Your task to perform on an android device: What is the recent news? Image 0: 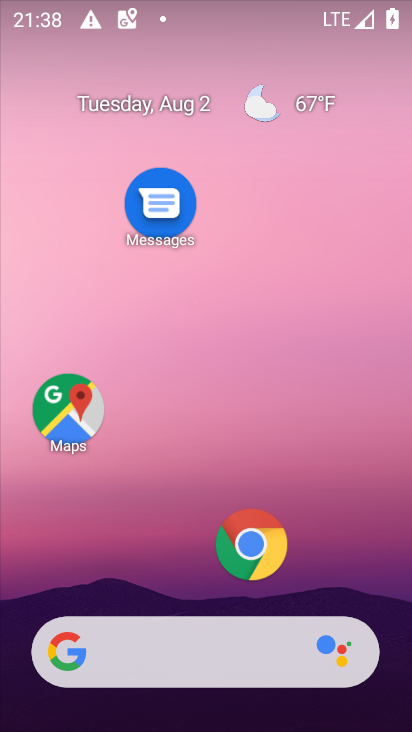
Step 0: drag from (182, 589) to (172, 167)
Your task to perform on an android device: What is the recent news? Image 1: 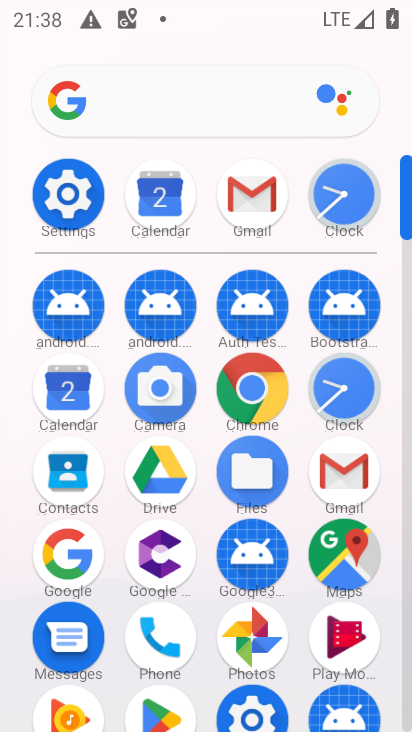
Step 1: click (87, 564)
Your task to perform on an android device: What is the recent news? Image 2: 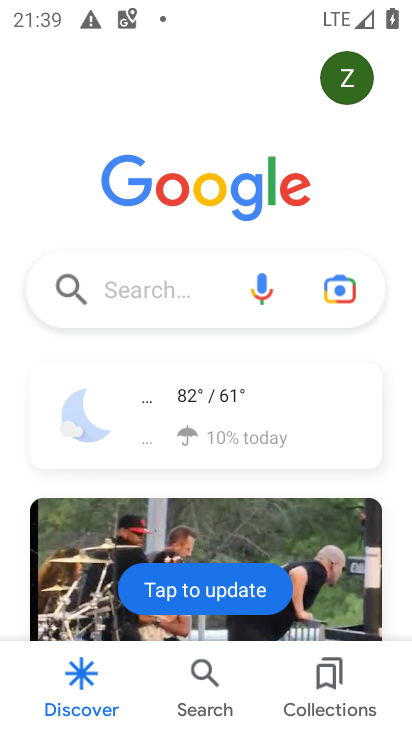
Step 2: click (161, 280)
Your task to perform on an android device: What is the recent news? Image 3: 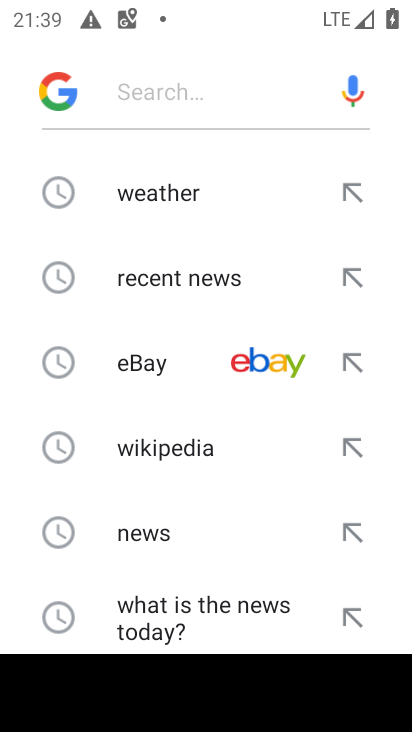
Step 3: click (156, 523)
Your task to perform on an android device: What is the recent news? Image 4: 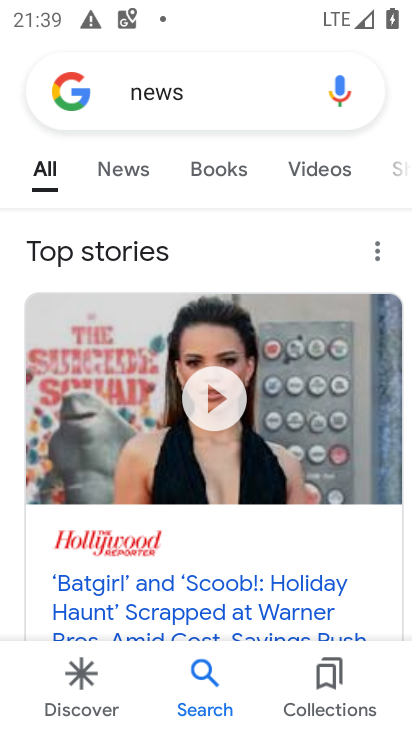
Step 4: click (105, 157)
Your task to perform on an android device: What is the recent news? Image 5: 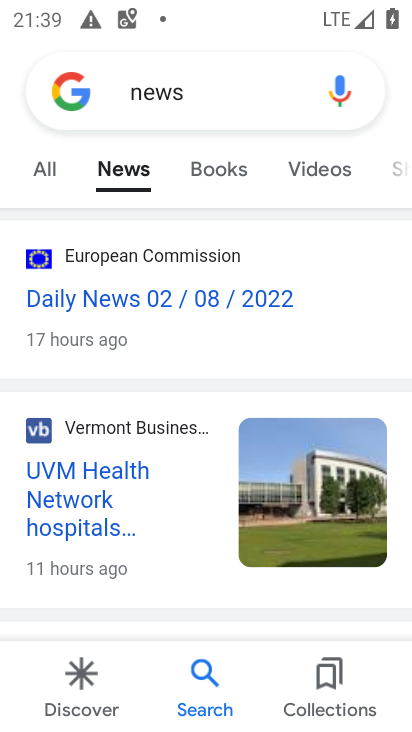
Step 5: task complete